Your task to perform on an android device: search for starred emails in the gmail app Image 0: 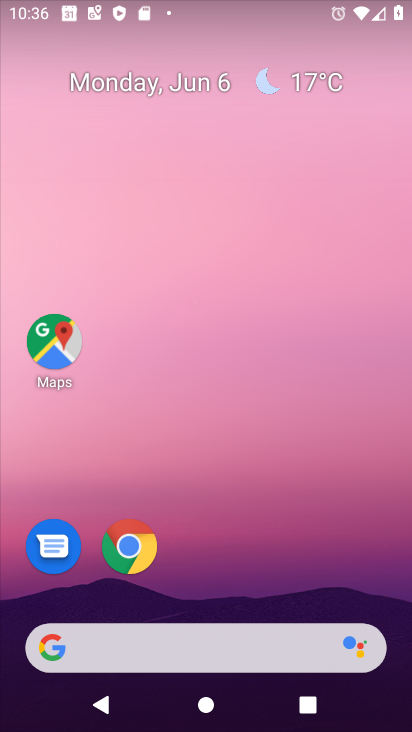
Step 0: drag from (221, 576) to (334, 184)
Your task to perform on an android device: search for starred emails in the gmail app Image 1: 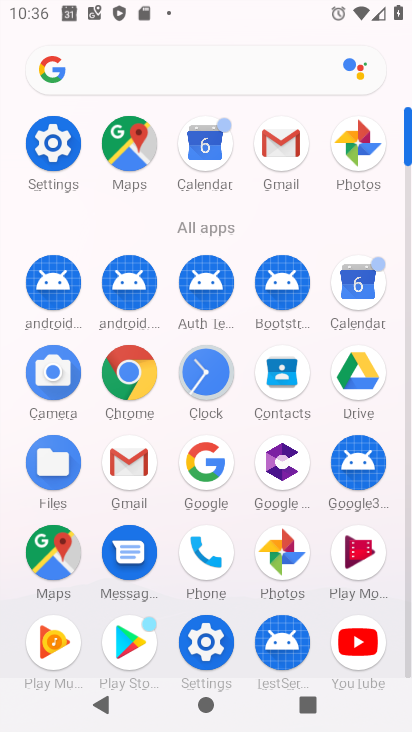
Step 1: click (132, 483)
Your task to perform on an android device: search for starred emails in the gmail app Image 2: 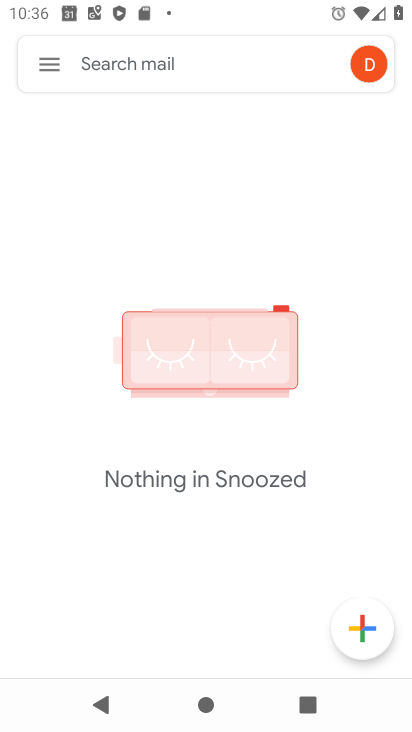
Step 2: click (56, 62)
Your task to perform on an android device: search for starred emails in the gmail app Image 3: 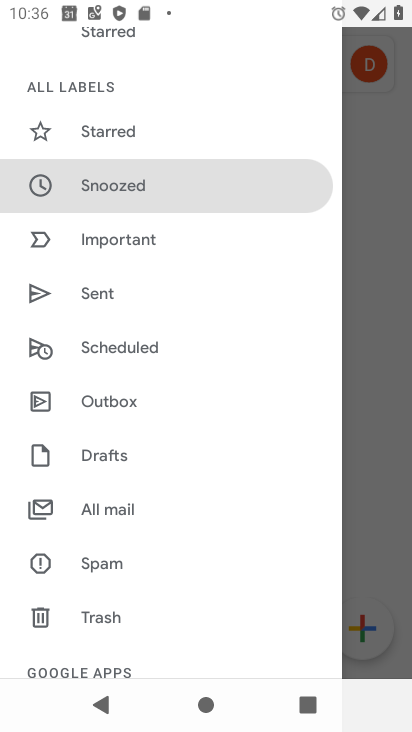
Step 3: click (118, 135)
Your task to perform on an android device: search for starred emails in the gmail app Image 4: 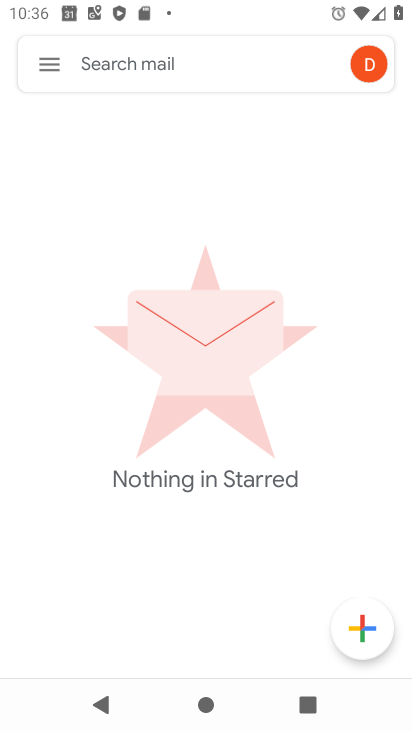
Step 4: task complete